Your task to perform on an android device: What's the weather today? Image 0: 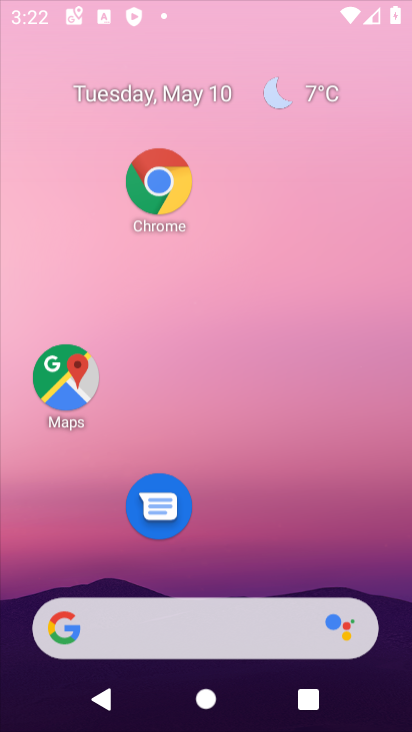
Step 0: click (117, 106)
Your task to perform on an android device: What's the weather today? Image 1: 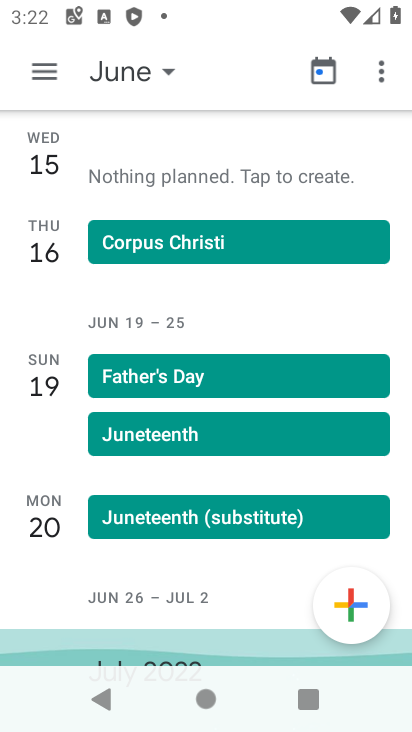
Step 1: press home button
Your task to perform on an android device: What's the weather today? Image 2: 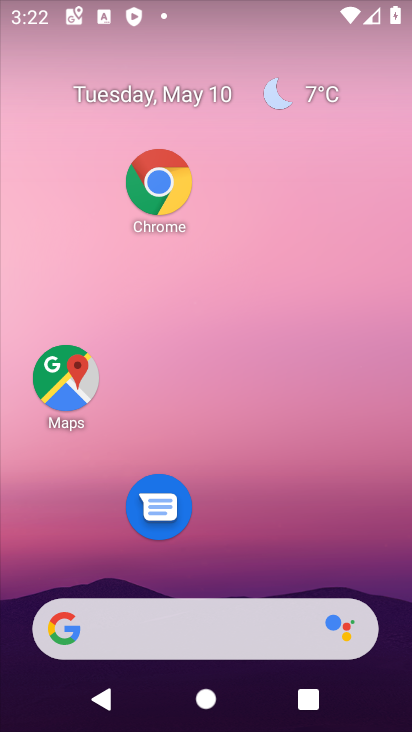
Step 2: click (239, 649)
Your task to perform on an android device: What's the weather today? Image 3: 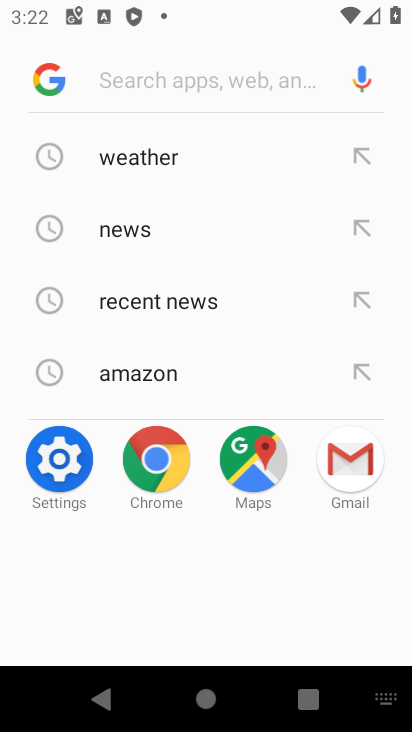
Step 3: click (138, 151)
Your task to perform on an android device: What's the weather today? Image 4: 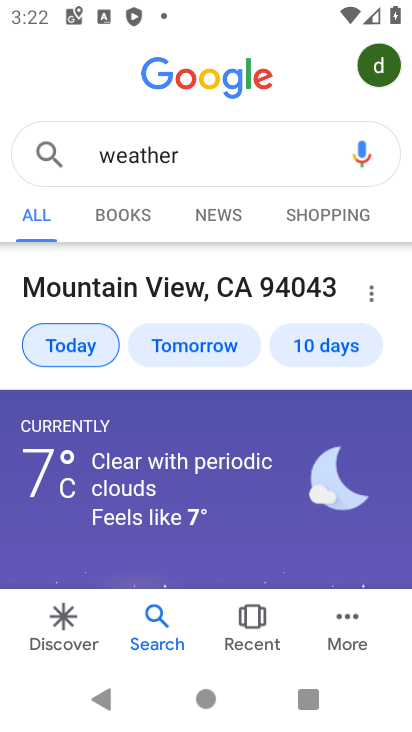
Step 4: task complete